Your task to perform on an android device: open app "eBay: The shopping marketplace" (install if not already installed) Image 0: 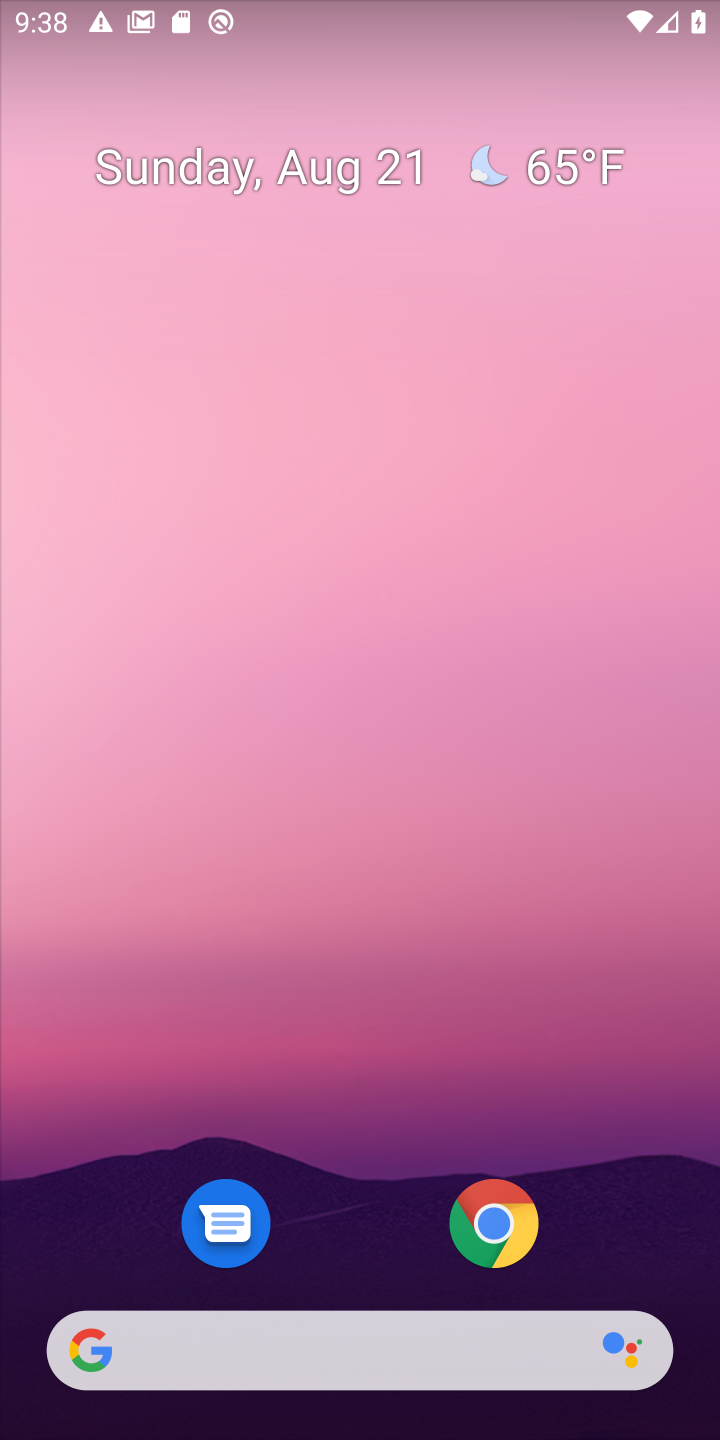
Step 0: drag from (600, 977) to (626, 226)
Your task to perform on an android device: open app "eBay: The shopping marketplace" (install if not already installed) Image 1: 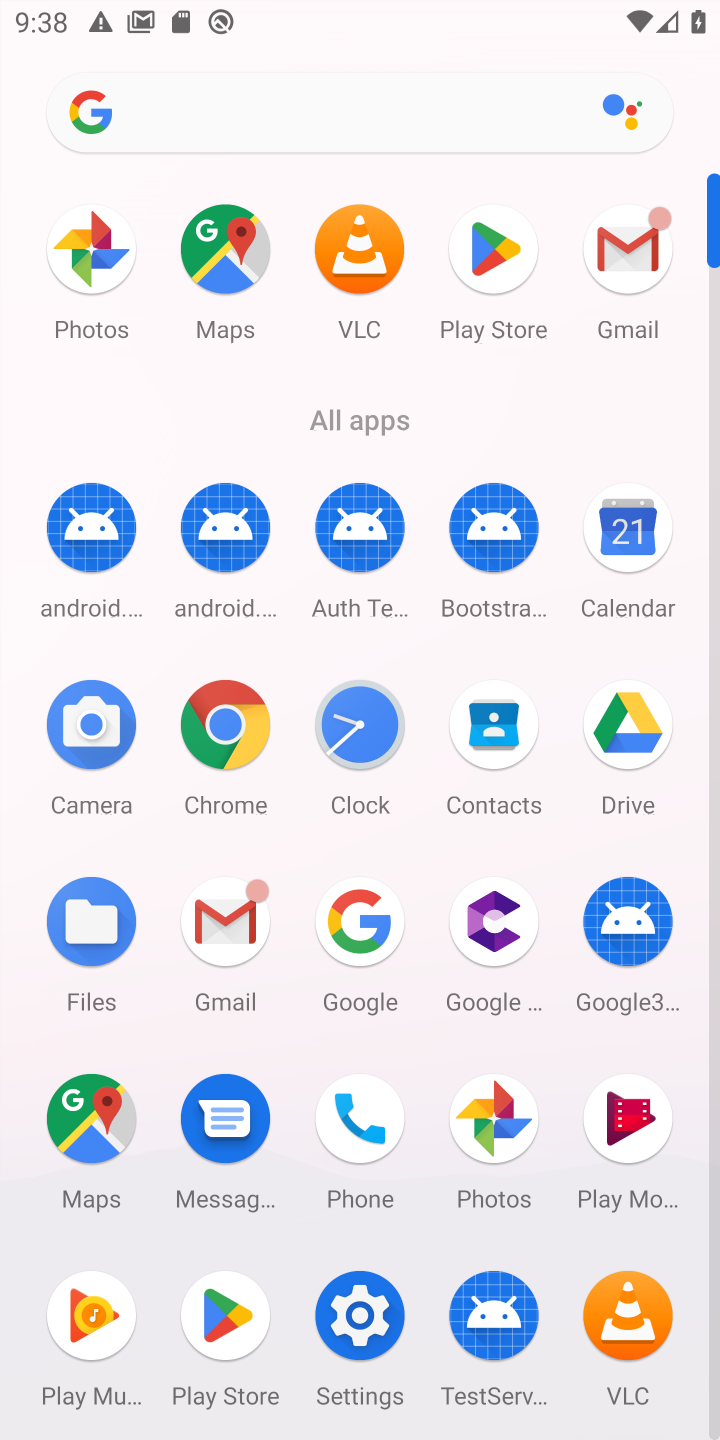
Step 1: click (496, 236)
Your task to perform on an android device: open app "eBay: The shopping marketplace" (install if not already installed) Image 2: 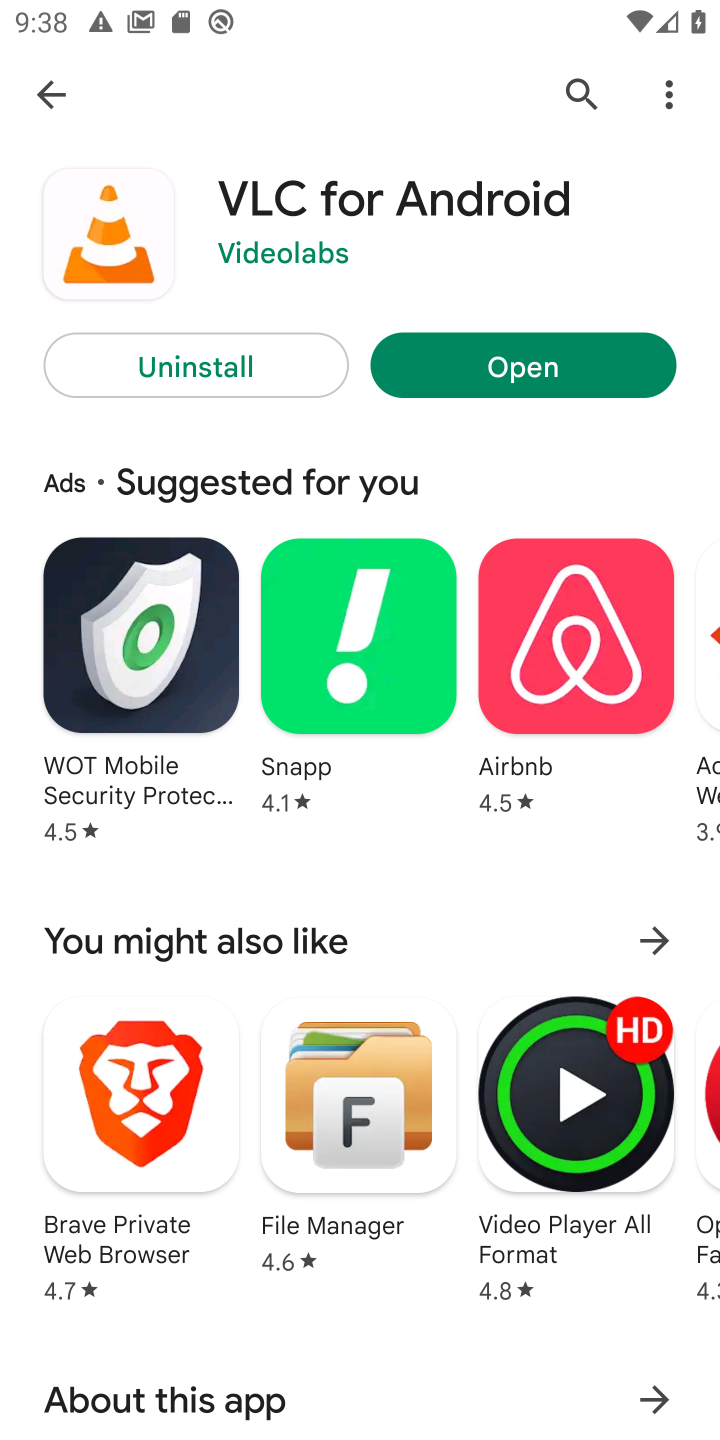
Step 2: press back button
Your task to perform on an android device: open app "eBay: The shopping marketplace" (install if not already installed) Image 3: 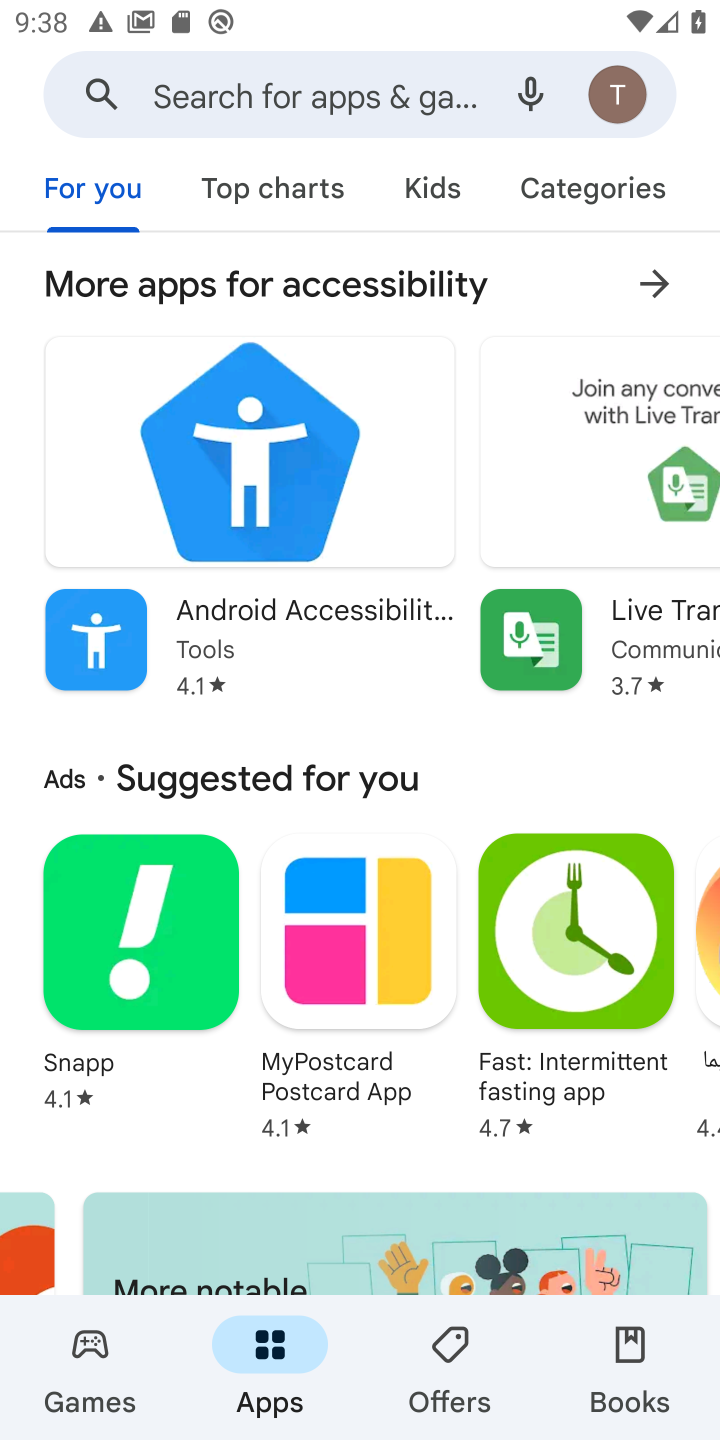
Step 3: click (359, 101)
Your task to perform on an android device: open app "eBay: The shopping marketplace" (install if not already installed) Image 4: 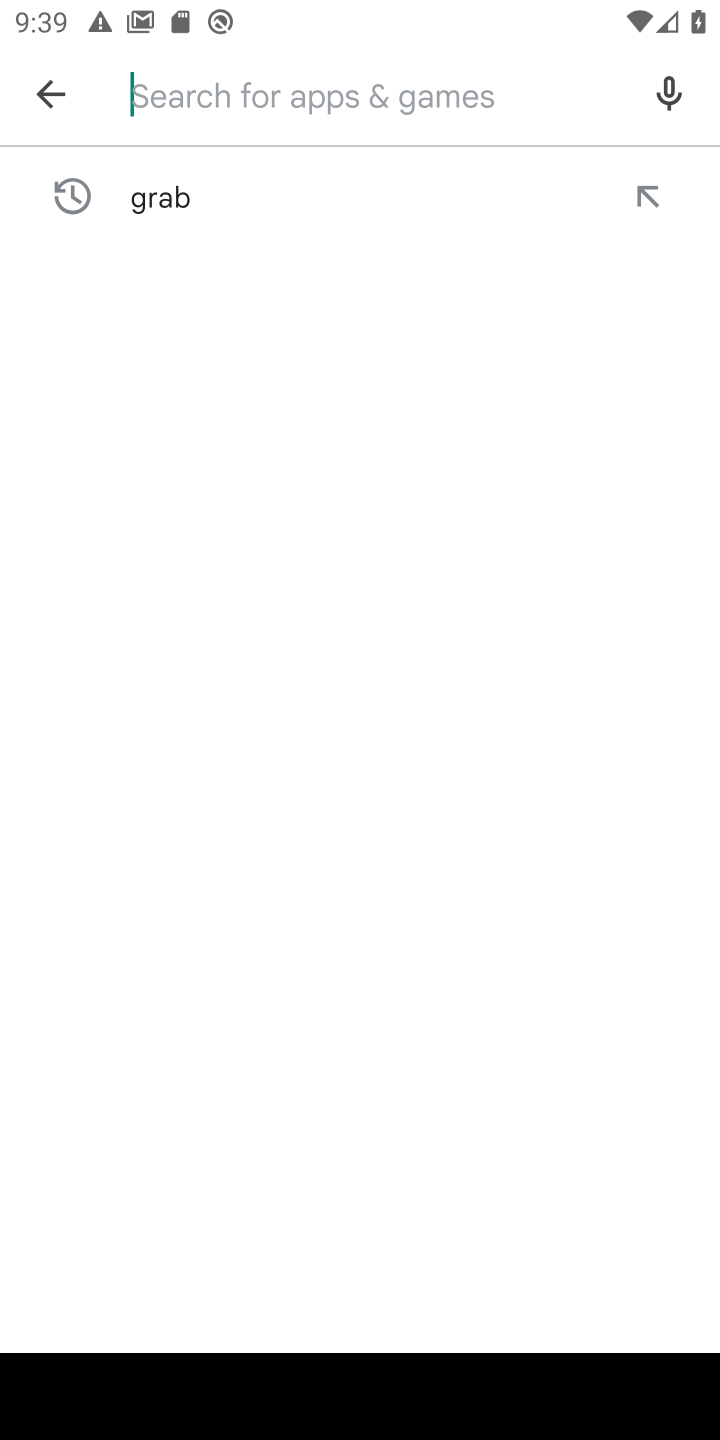
Step 4: press enter
Your task to perform on an android device: open app "eBay: The shopping marketplace" (install if not already installed) Image 5: 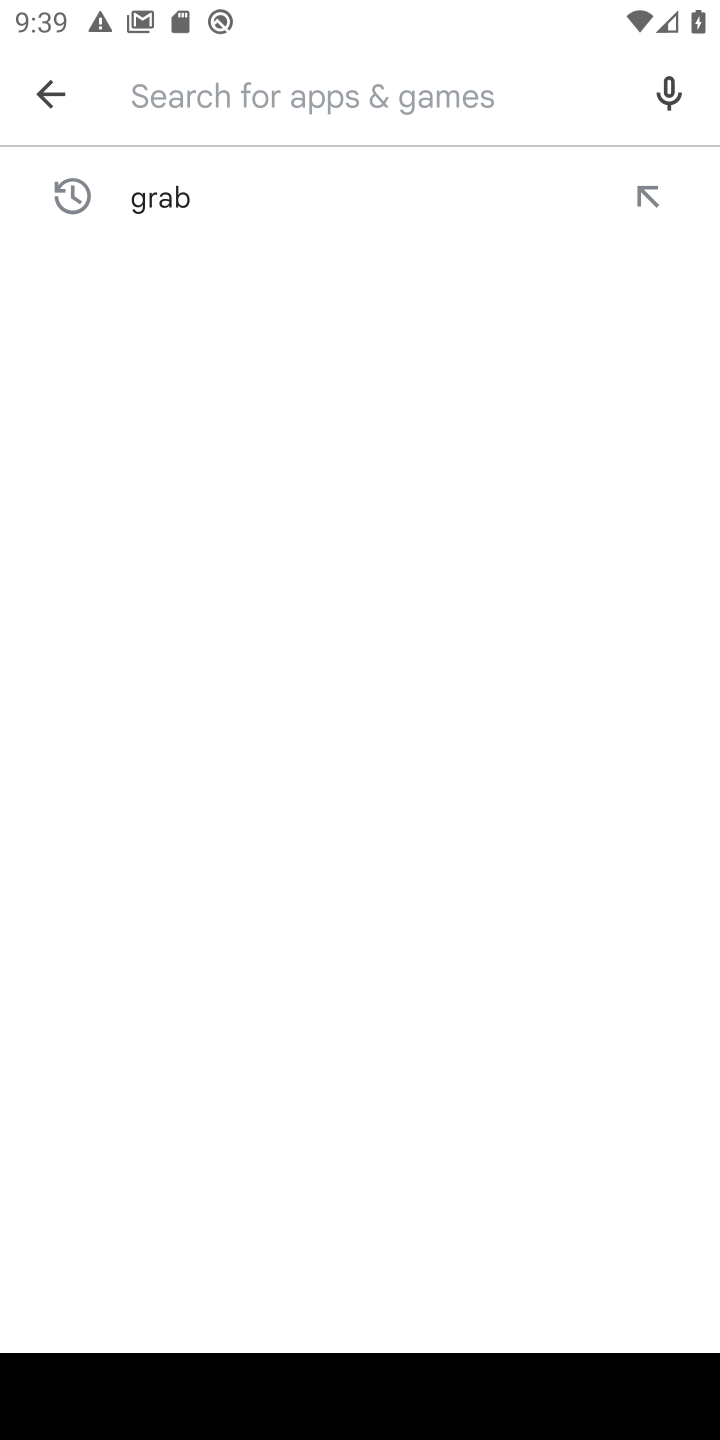
Step 5: type "ebay"
Your task to perform on an android device: open app "eBay: The shopping marketplace" (install if not already installed) Image 6: 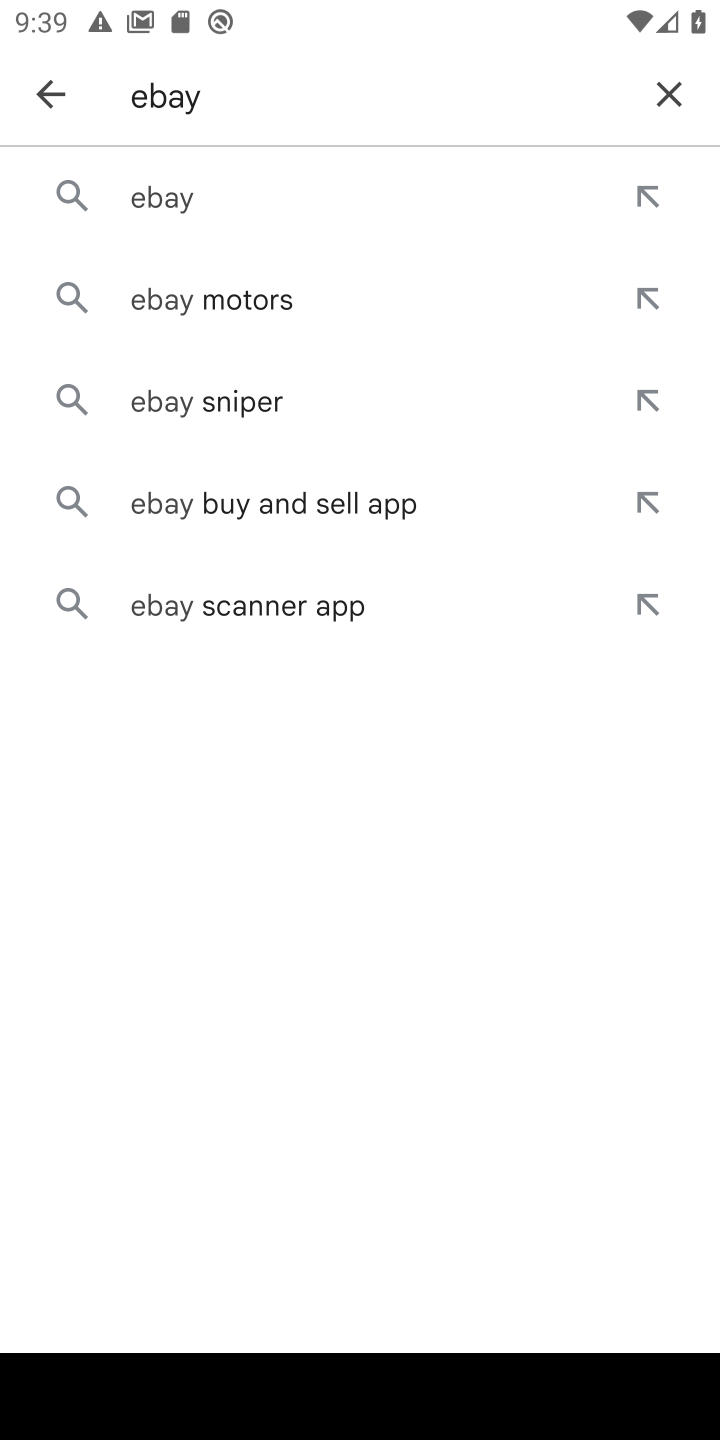
Step 6: click (225, 199)
Your task to perform on an android device: open app "eBay: The shopping marketplace" (install if not already installed) Image 7: 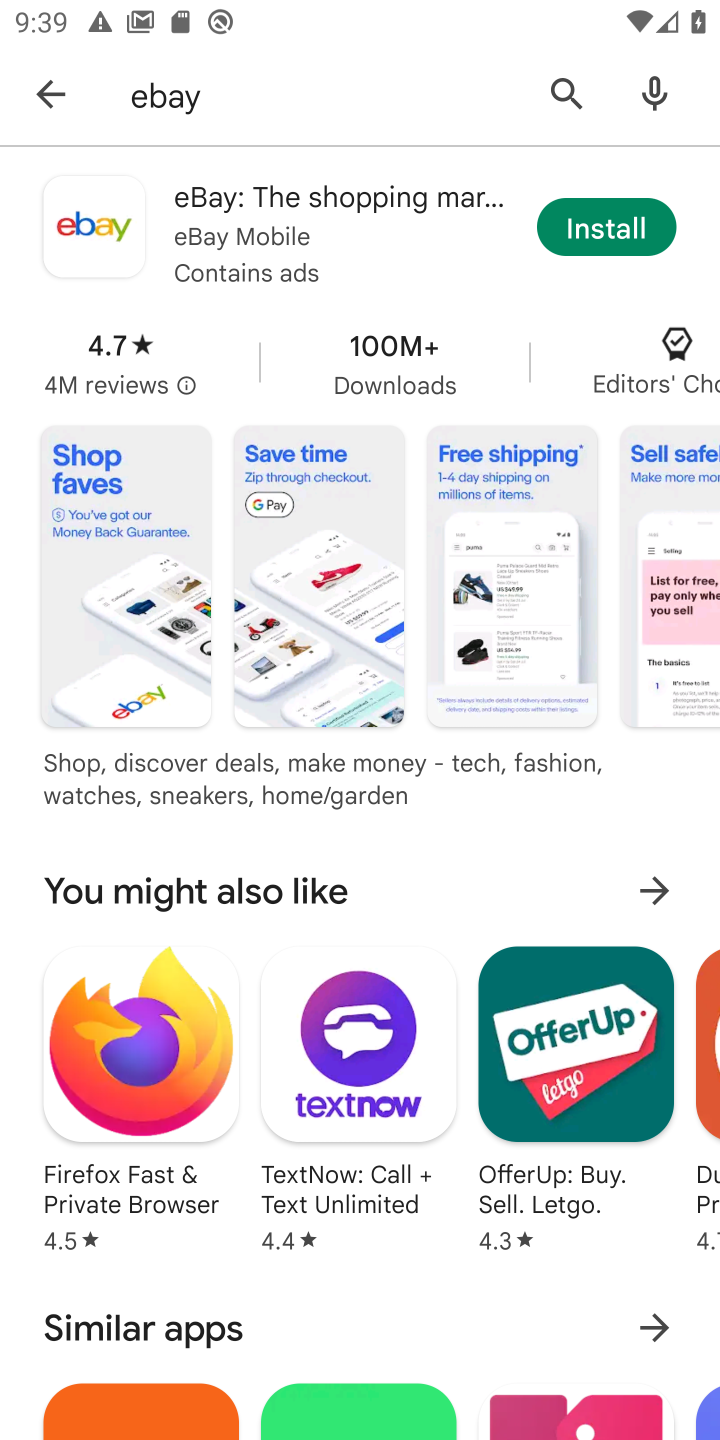
Step 7: click (616, 216)
Your task to perform on an android device: open app "eBay: The shopping marketplace" (install if not already installed) Image 8: 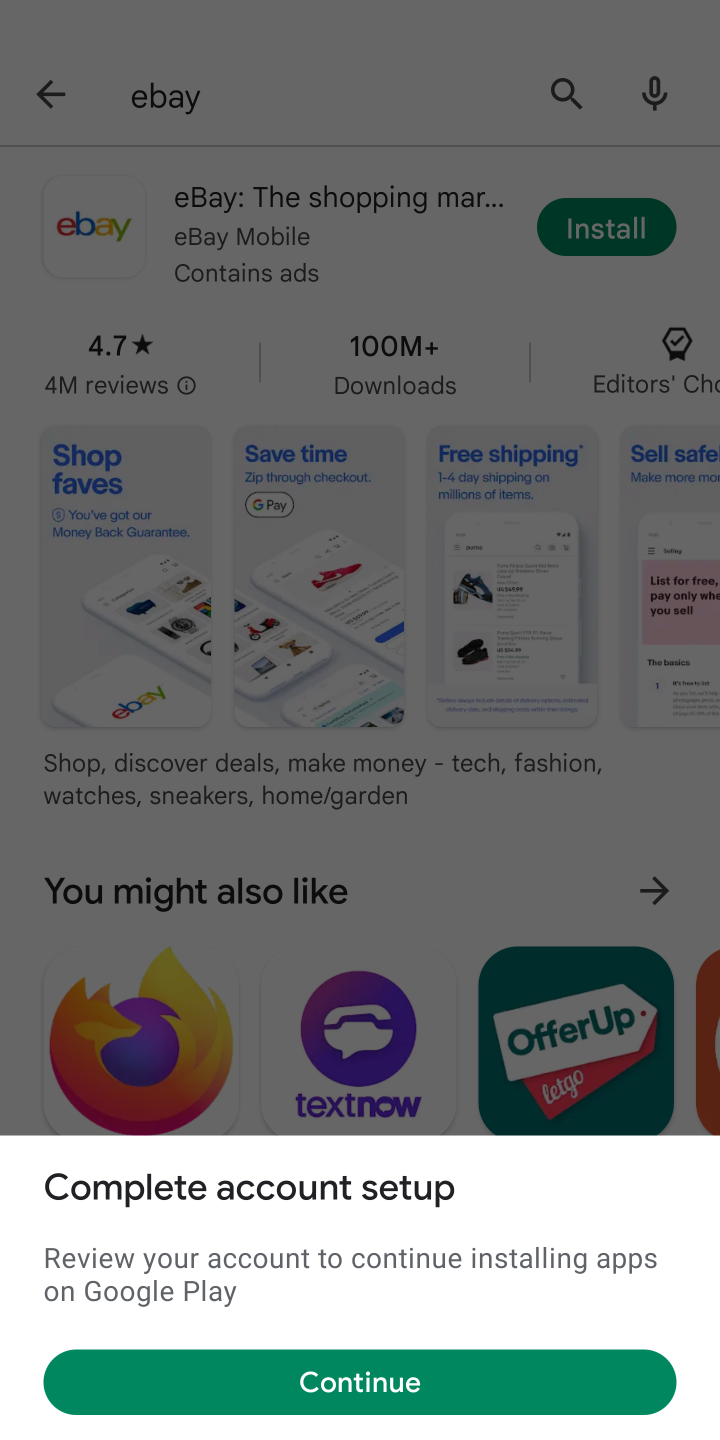
Step 8: click (560, 1384)
Your task to perform on an android device: open app "eBay: The shopping marketplace" (install if not already installed) Image 9: 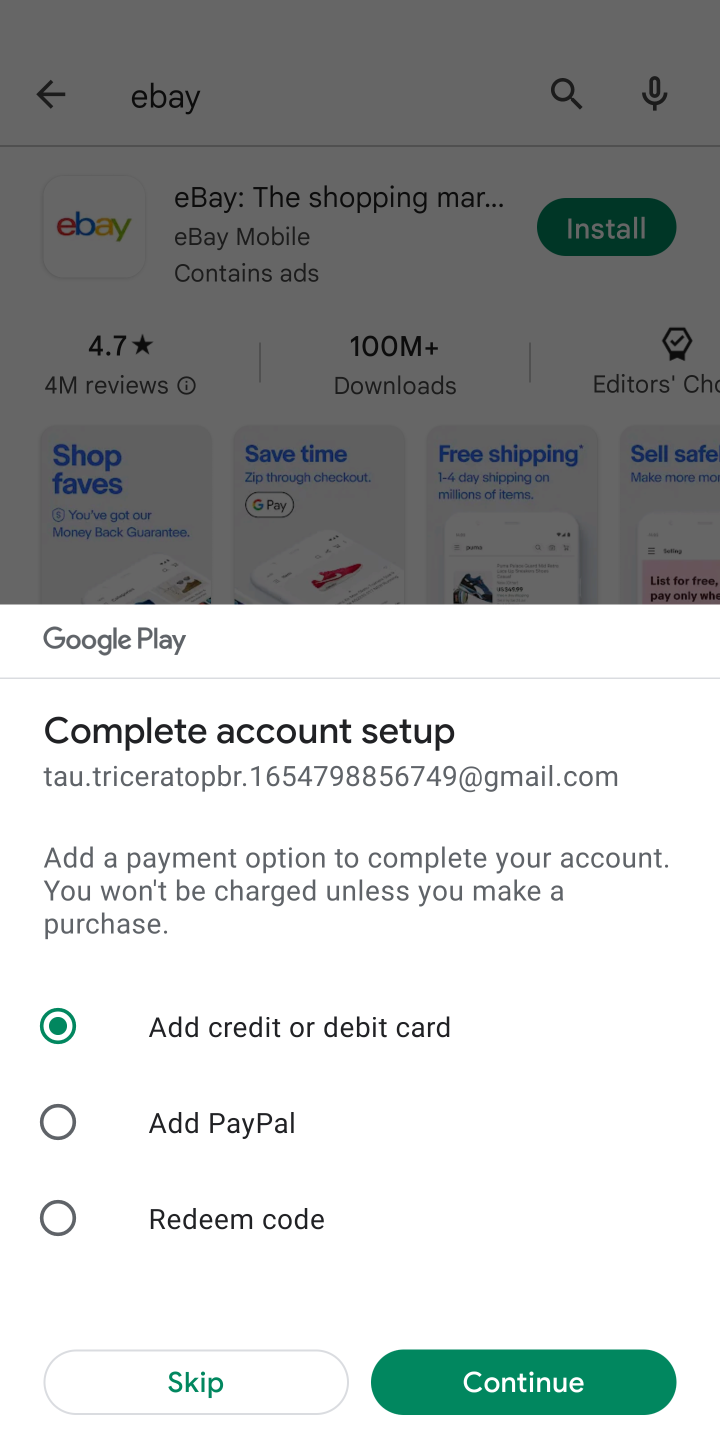
Step 9: click (186, 1377)
Your task to perform on an android device: open app "eBay: The shopping marketplace" (install if not already installed) Image 10: 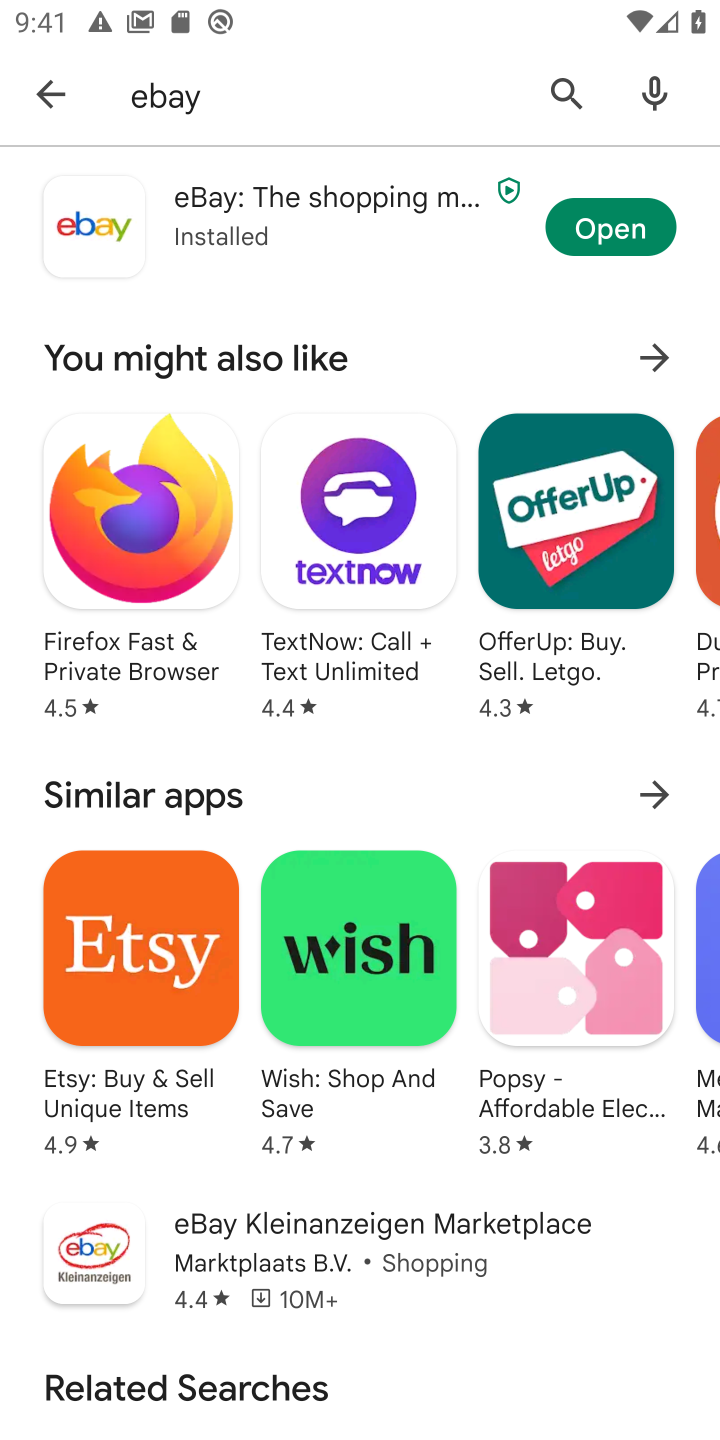
Step 10: click (625, 215)
Your task to perform on an android device: open app "eBay: The shopping marketplace" (install if not already installed) Image 11: 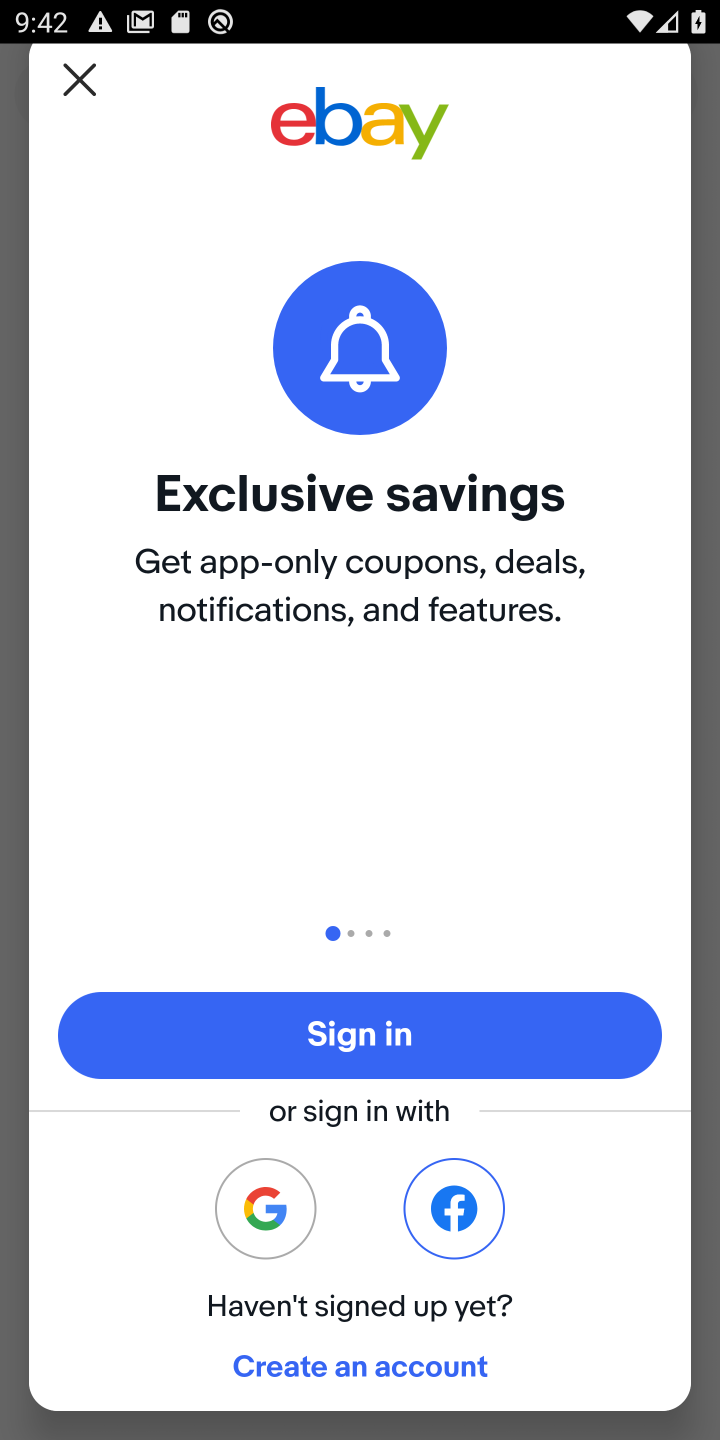
Step 11: task complete